Your task to perform on an android device: delete location history Image 0: 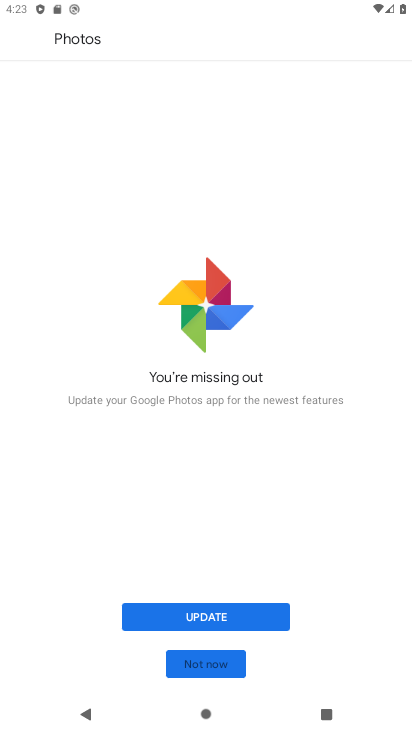
Step 0: press home button
Your task to perform on an android device: delete location history Image 1: 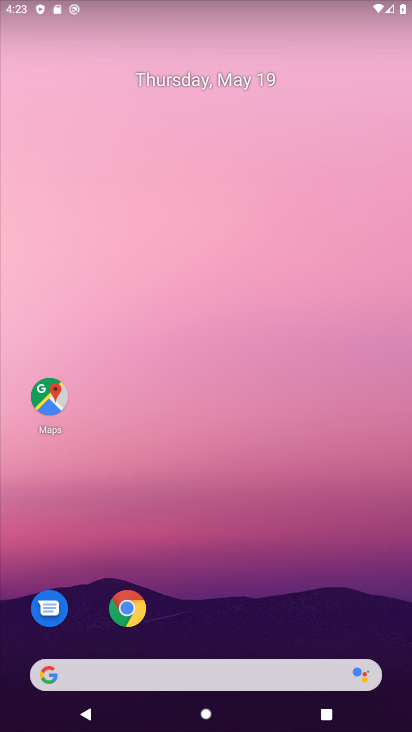
Step 1: drag from (178, 623) to (227, 0)
Your task to perform on an android device: delete location history Image 2: 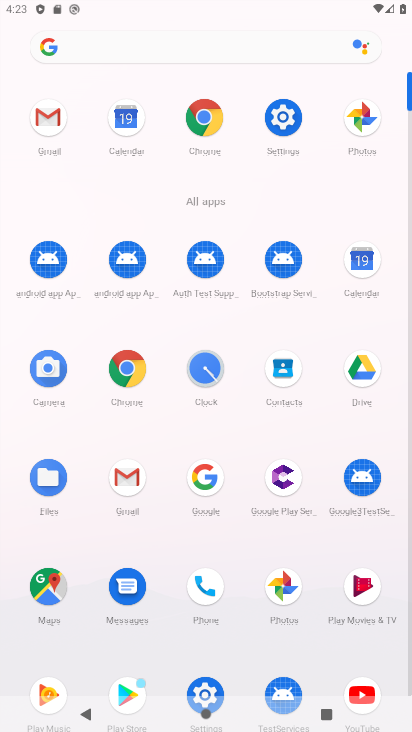
Step 2: drag from (326, 653) to (302, 140)
Your task to perform on an android device: delete location history Image 3: 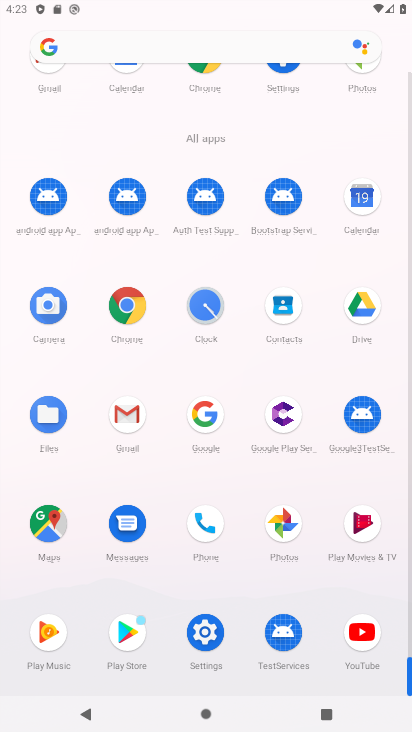
Step 3: click (45, 535)
Your task to perform on an android device: delete location history Image 4: 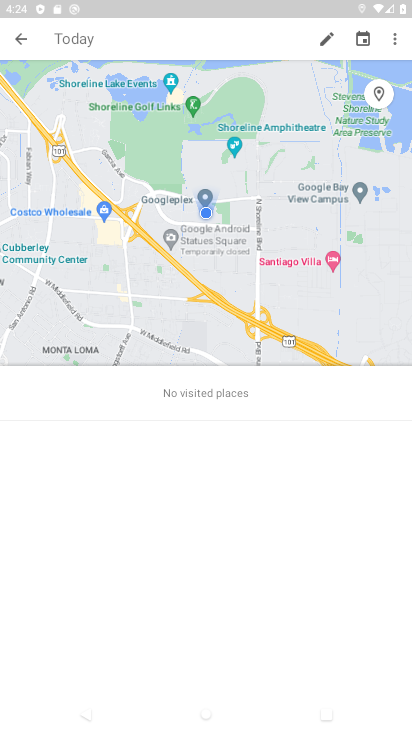
Step 4: click (21, 48)
Your task to perform on an android device: delete location history Image 5: 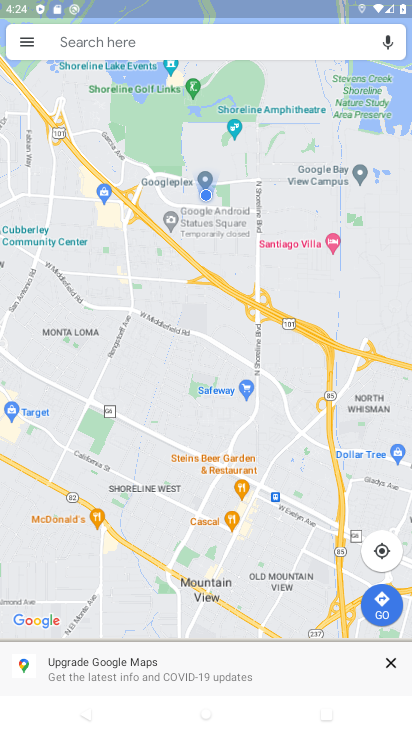
Step 5: click (24, 32)
Your task to perform on an android device: delete location history Image 6: 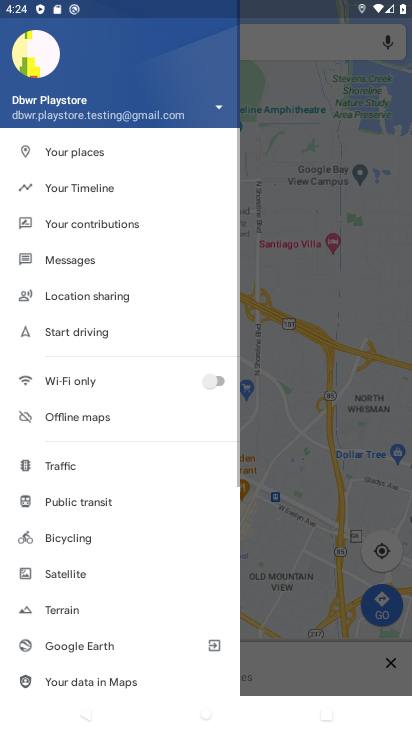
Step 6: drag from (132, 621) to (50, 571)
Your task to perform on an android device: delete location history Image 7: 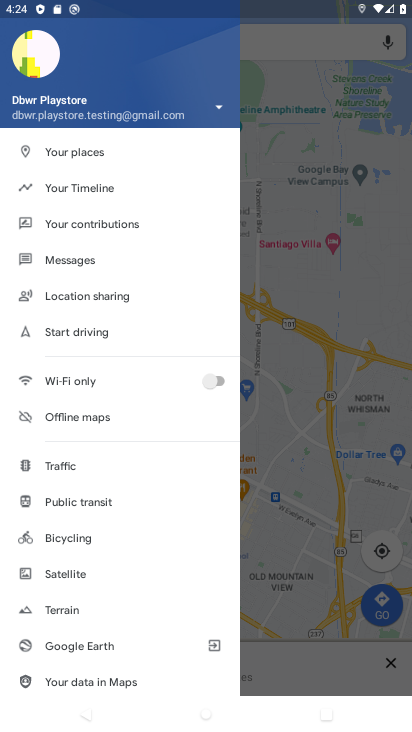
Step 7: drag from (125, 638) to (186, 184)
Your task to perform on an android device: delete location history Image 8: 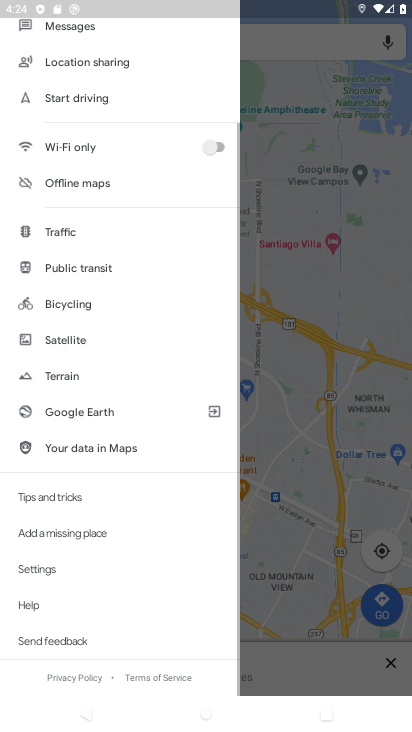
Step 8: click (48, 568)
Your task to perform on an android device: delete location history Image 9: 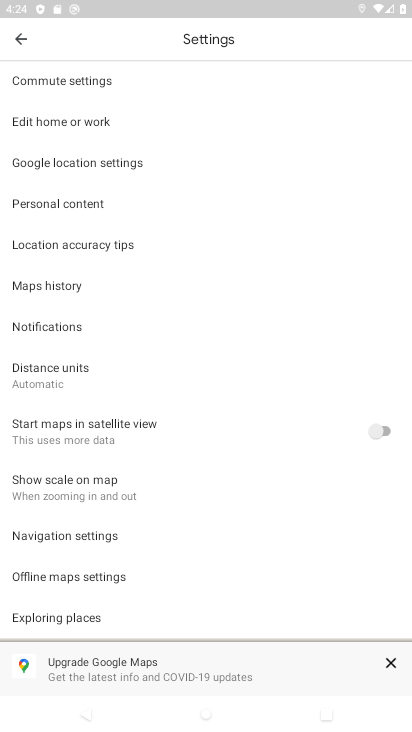
Step 9: click (70, 282)
Your task to perform on an android device: delete location history Image 10: 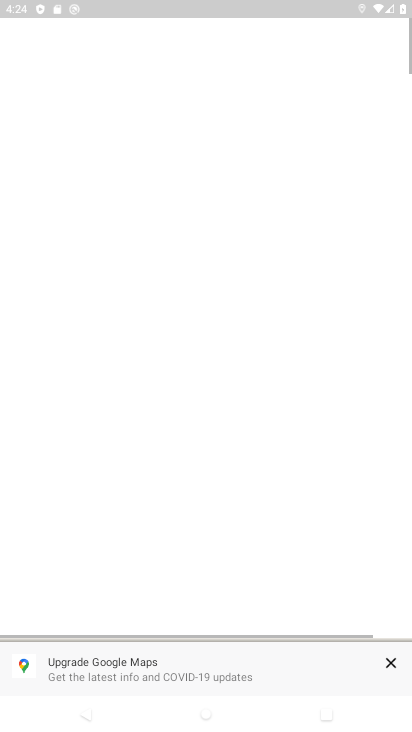
Step 10: click (394, 665)
Your task to perform on an android device: delete location history Image 11: 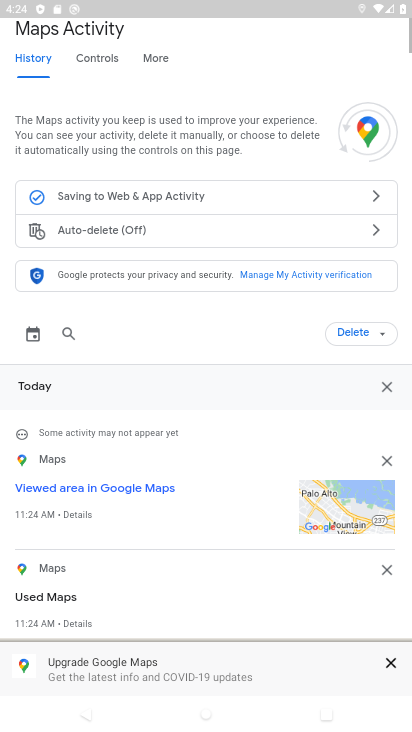
Step 11: click (390, 658)
Your task to perform on an android device: delete location history Image 12: 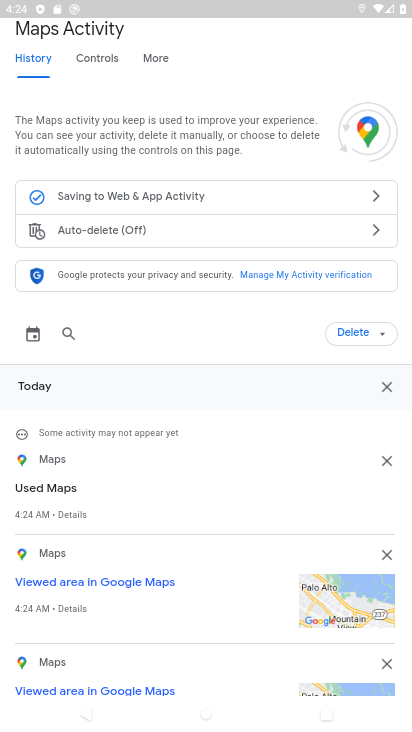
Step 12: click (372, 321)
Your task to perform on an android device: delete location history Image 13: 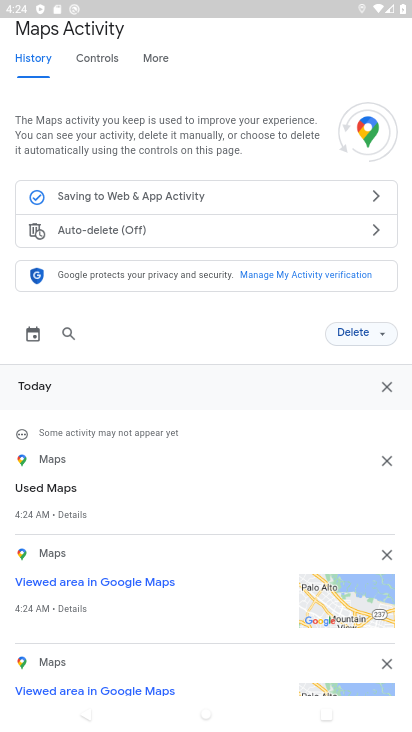
Step 13: click (357, 334)
Your task to perform on an android device: delete location history Image 14: 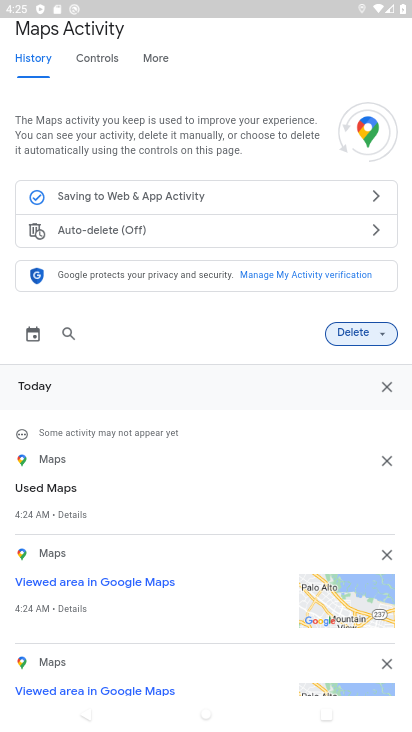
Step 14: click (362, 338)
Your task to perform on an android device: delete location history Image 15: 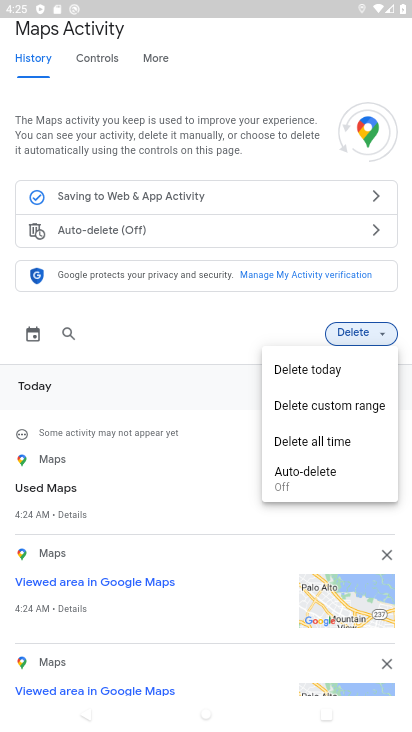
Step 15: click (323, 440)
Your task to perform on an android device: delete location history Image 16: 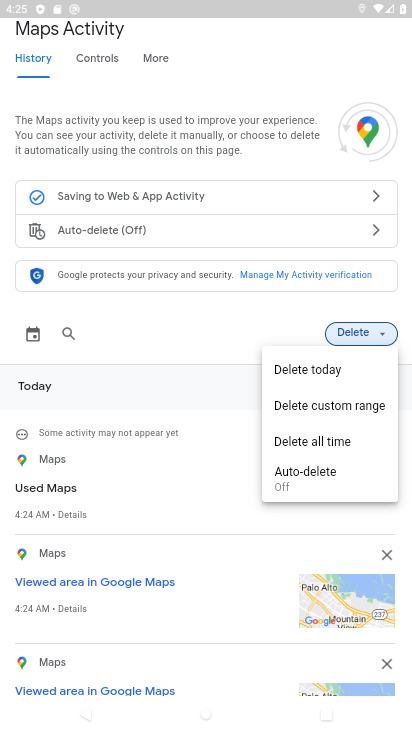
Step 16: click (323, 438)
Your task to perform on an android device: delete location history Image 17: 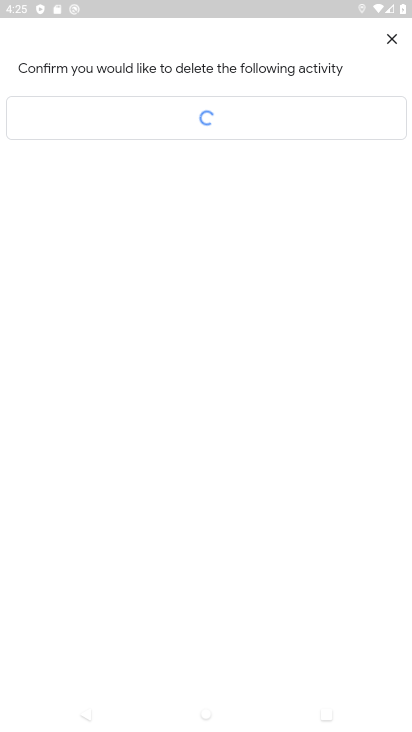
Step 17: click (318, 437)
Your task to perform on an android device: delete location history Image 18: 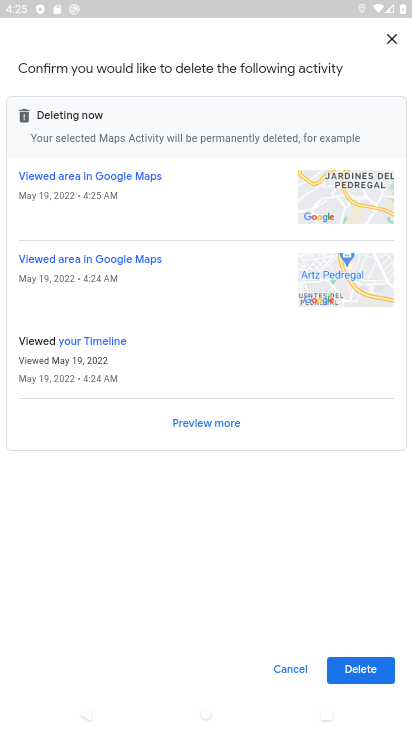
Step 18: click (318, 437)
Your task to perform on an android device: delete location history Image 19: 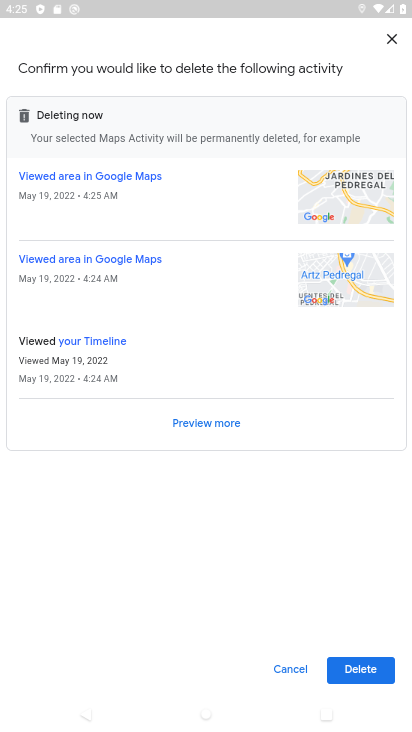
Step 19: click (368, 670)
Your task to perform on an android device: delete location history Image 20: 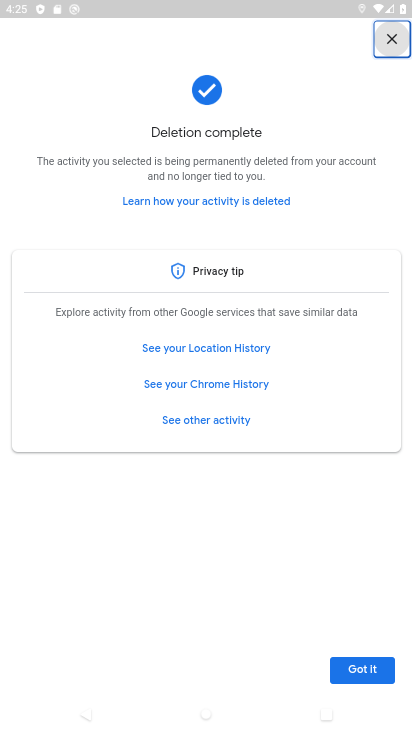
Step 20: task complete